Your task to perform on an android device: find snoozed emails in the gmail app Image 0: 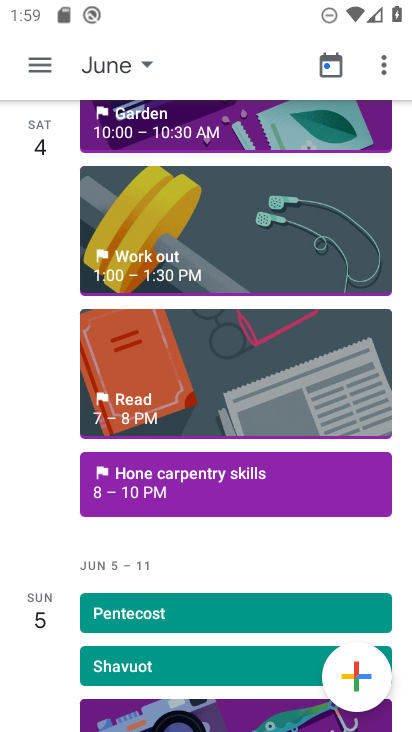
Step 0: press home button
Your task to perform on an android device: find snoozed emails in the gmail app Image 1: 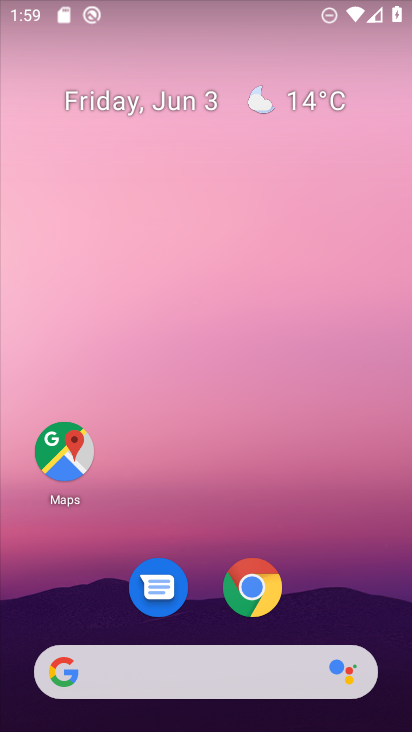
Step 1: drag from (206, 614) to (229, 29)
Your task to perform on an android device: find snoozed emails in the gmail app Image 2: 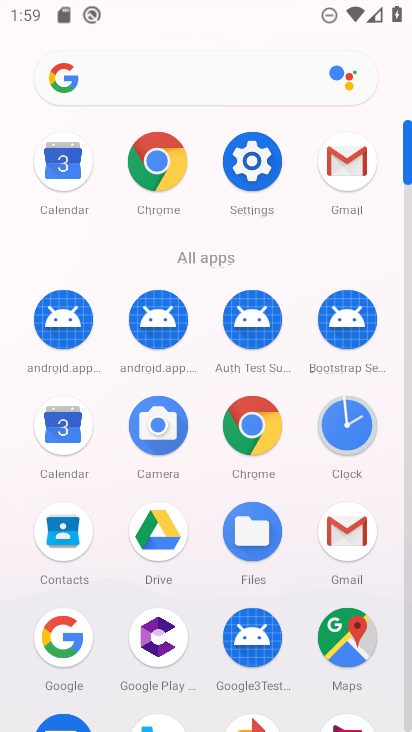
Step 2: click (340, 525)
Your task to perform on an android device: find snoozed emails in the gmail app Image 3: 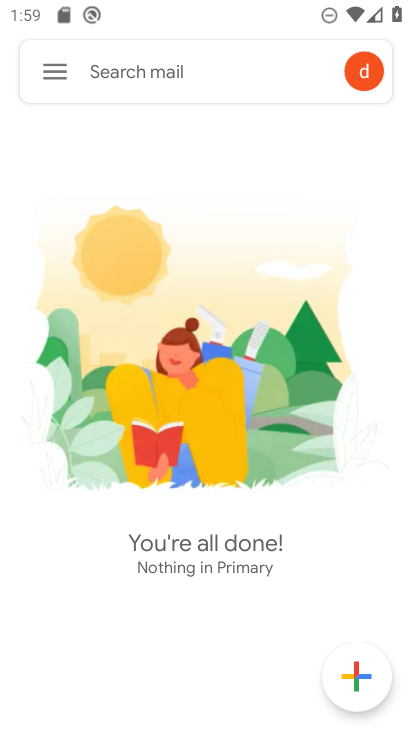
Step 3: click (45, 64)
Your task to perform on an android device: find snoozed emails in the gmail app Image 4: 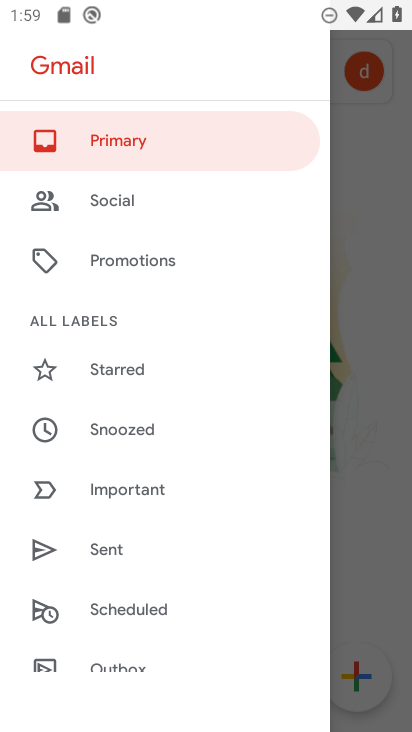
Step 4: click (141, 444)
Your task to perform on an android device: find snoozed emails in the gmail app Image 5: 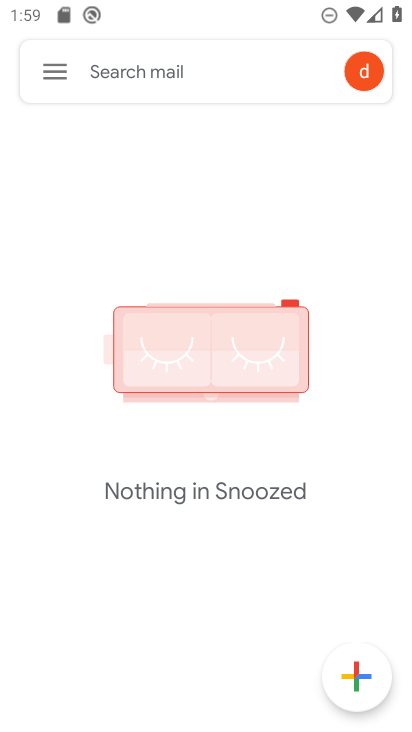
Step 5: task complete